Your task to perform on an android device: Open CNN.com Image 0: 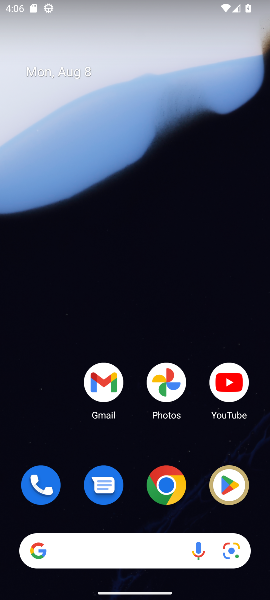
Step 0: drag from (152, 585) to (150, 81)
Your task to perform on an android device: Open CNN.com Image 1: 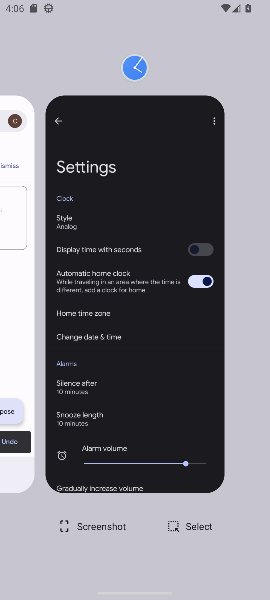
Step 1: drag from (84, 247) to (96, 59)
Your task to perform on an android device: Open CNN.com Image 2: 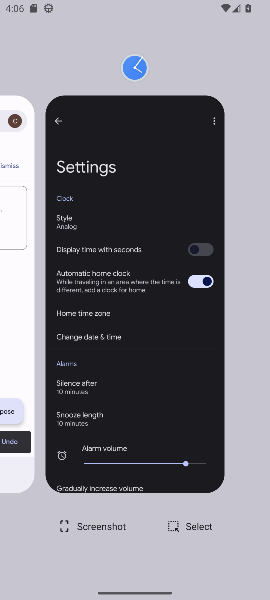
Step 2: click (225, 90)
Your task to perform on an android device: Open CNN.com Image 3: 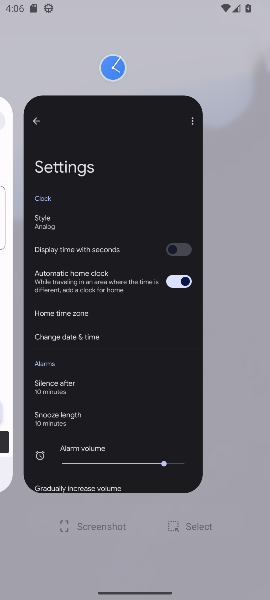
Step 3: click (214, 59)
Your task to perform on an android device: Open CNN.com Image 4: 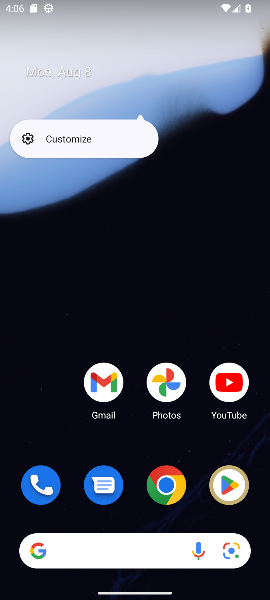
Step 4: drag from (174, 364) to (168, 90)
Your task to perform on an android device: Open CNN.com Image 5: 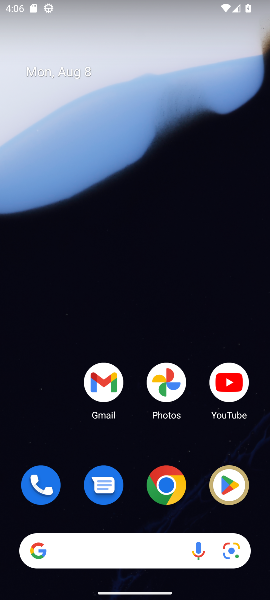
Step 5: drag from (186, 361) to (197, 10)
Your task to perform on an android device: Open CNN.com Image 6: 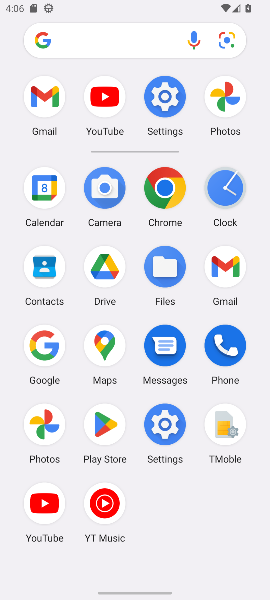
Step 6: drag from (214, 304) to (219, 75)
Your task to perform on an android device: Open CNN.com Image 7: 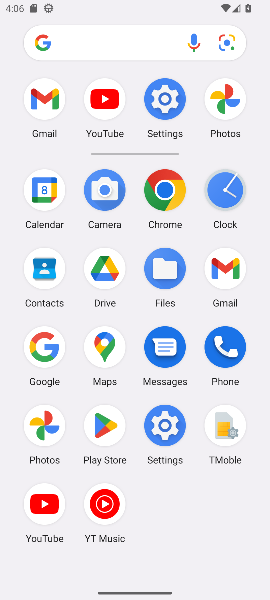
Step 7: click (164, 176)
Your task to perform on an android device: Open CNN.com Image 8: 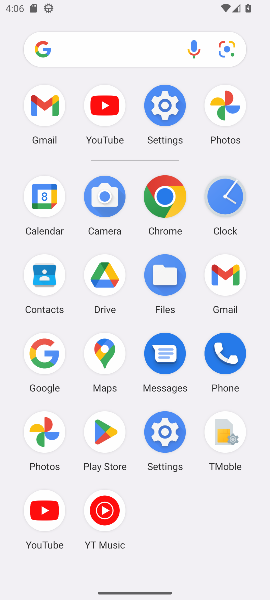
Step 8: click (164, 192)
Your task to perform on an android device: Open CNN.com Image 9: 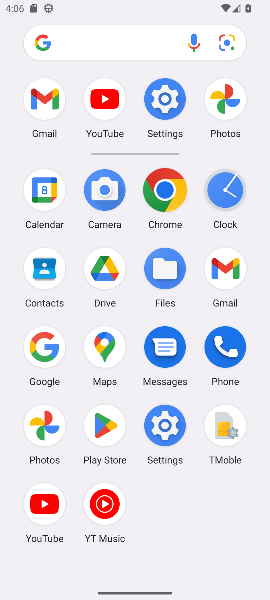
Step 9: click (164, 194)
Your task to perform on an android device: Open CNN.com Image 10: 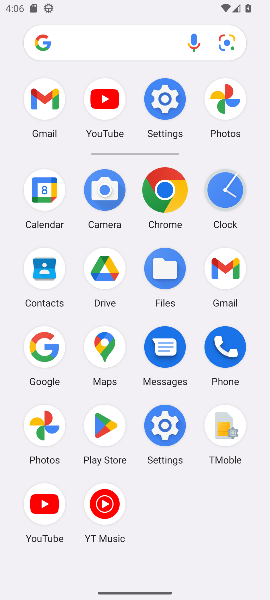
Step 10: click (164, 194)
Your task to perform on an android device: Open CNN.com Image 11: 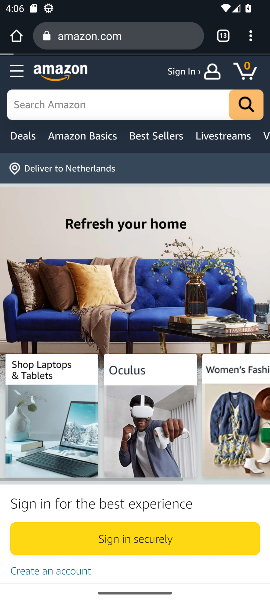
Step 11: click (164, 180)
Your task to perform on an android device: Open CNN.com Image 12: 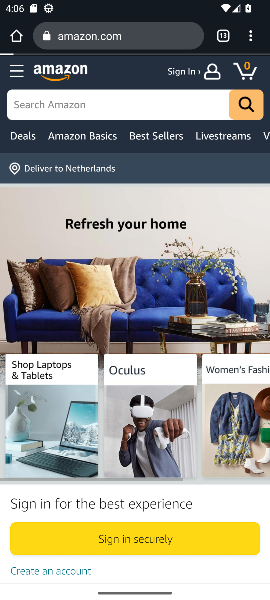
Step 12: click (164, 180)
Your task to perform on an android device: Open CNN.com Image 13: 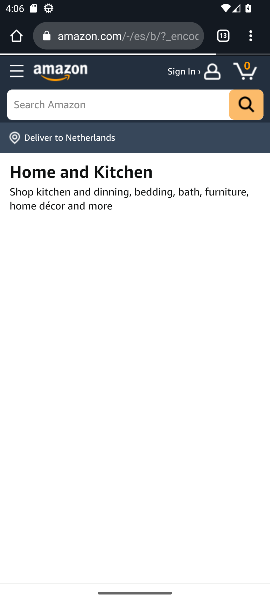
Step 13: drag from (243, 31) to (109, 279)
Your task to perform on an android device: Open CNN.com Image 14: 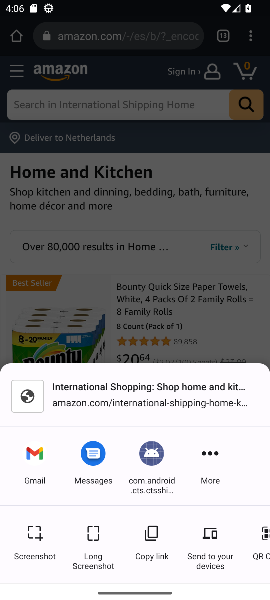
Step 14: click (251, 38)
Your task to perform on an android device: Open CNN.com Image 15: 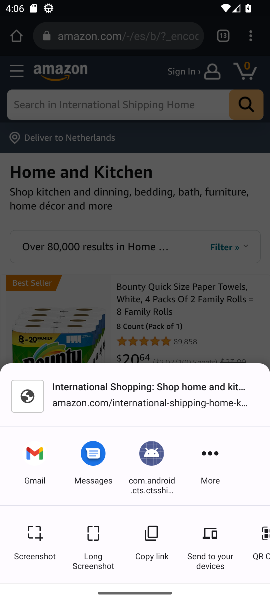
Step 15: click (251, 39)
Your task to perform on an android device: Open CNN.com Image 16: 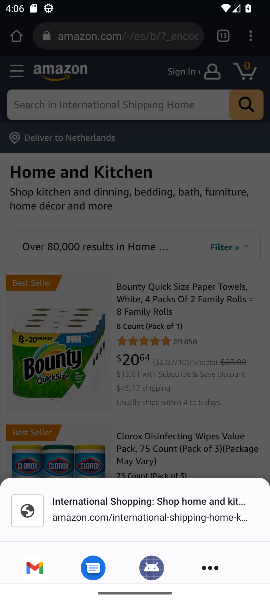
Step 16: click (251, 39)
Your task to perform on an android device: Open CNN.com Image 17: 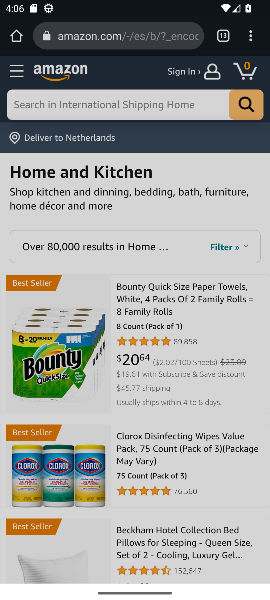
Step 17: click (254, 39)
Your task to perform on an android device: Open CNN.com Image 18: 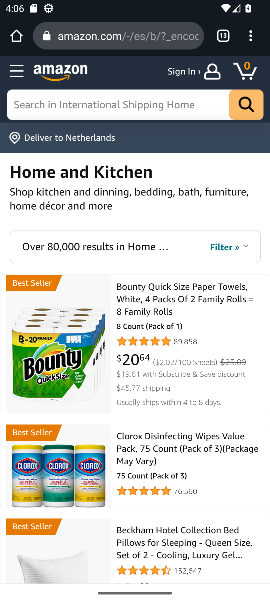
Step 18: click (255, 39)
Your task to perform on an android device: Open CNN.com Image 19: 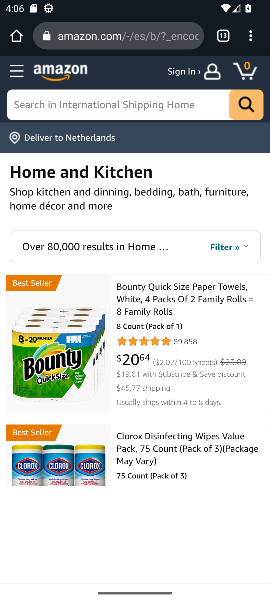
Step 19: drag from (251, 35) to (141, 73)
Your task to perform on an android device: Open CNN.com Image 20: 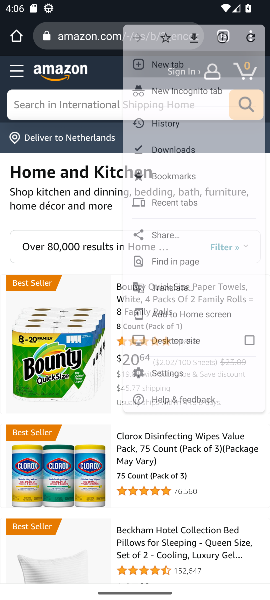
Step 20: click (144, 66)
Your task to perform on an android device: Open CNN.com Image 21: 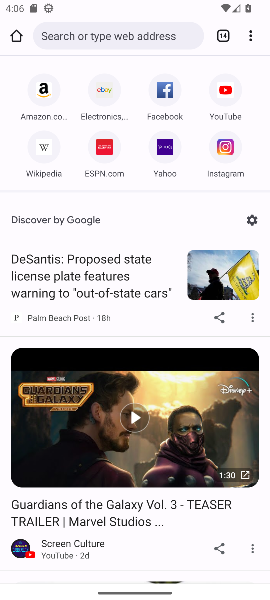
Step 21: click (40, 24)
Your task to perform on an android device: Open CNN.com Image 22: 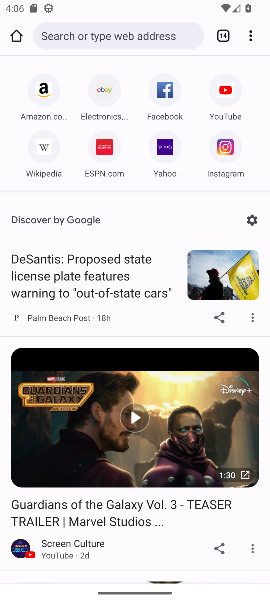
Step 22: click (46, 28)
Your task to perform on an android device: Open CNN.com Image 23: 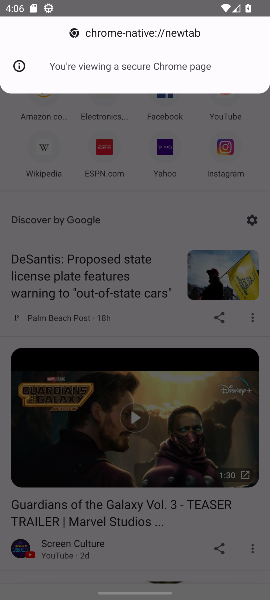
Step 23: click (46, 28)
Your task to perform on an android device: Open CNN.com Image 24: 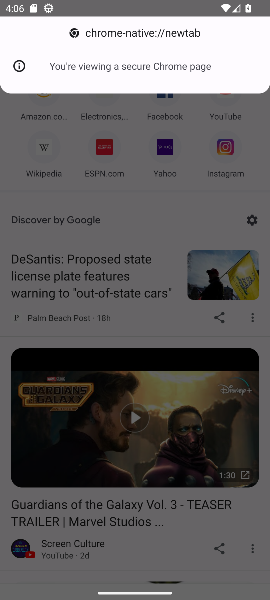
Step 24: click (82, 154)
Your task to perform on an android device: Open CNN.com Image 25: 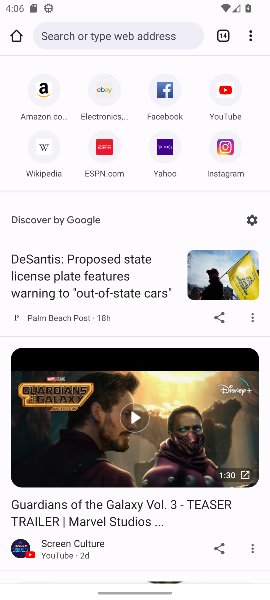
Step 25: click (56, 21)
Your task to perform on an android device: Open CNN.com Image 26: 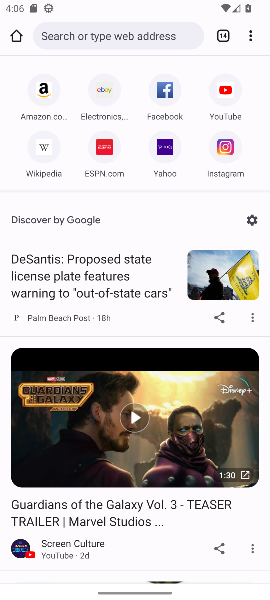
Step 26: click (55, 29)
Your task to perform on an android device: Open CNN.com Image 27: 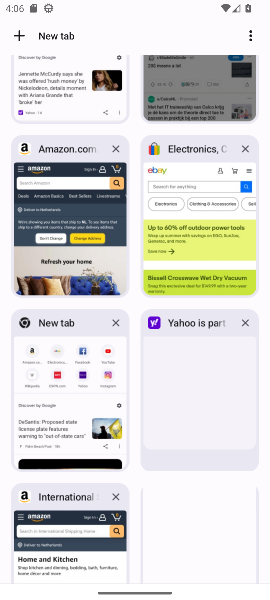
Step 27: click (58, 34)
Your task to perform on an android device: Open CNN.com Image 28: 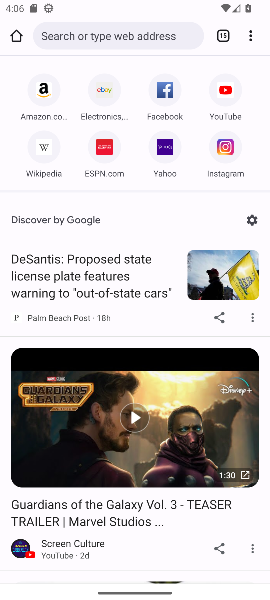
Step 28: click (51, 35)
Your task to perform on an android device: Open CNN.com Image 29: 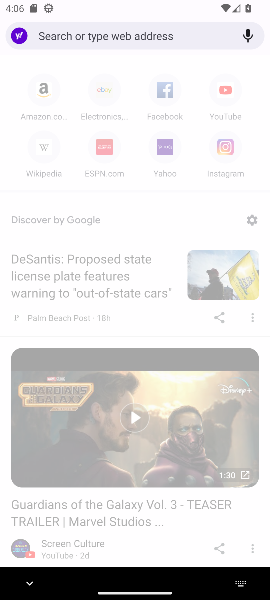
Step 29: type "CNN.com"
Your task to perform on an android device: Open CNN.com Image 30: 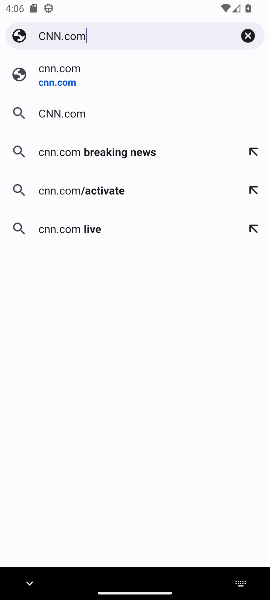
Step 30: click (61, 65)
Your task to perform on an android device: Open CNN.com Image 31: 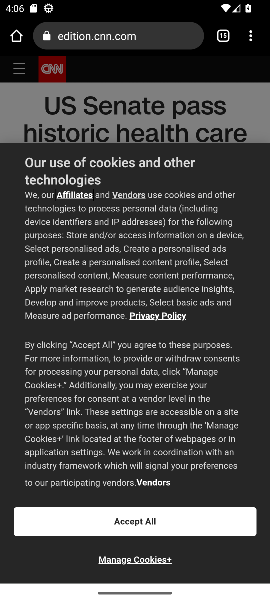
Step 31: task complete